Your task to perform on an android device: Go to ESPN.com Image 0: 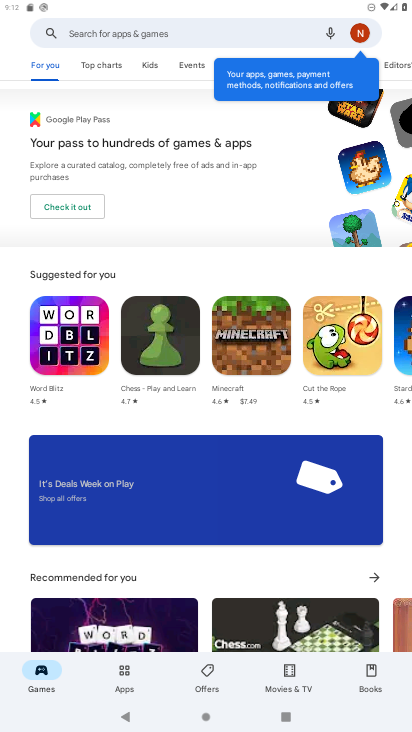
Step 0: press home button
Your task to perform on an android device: Go to ESPN.com Image 1: 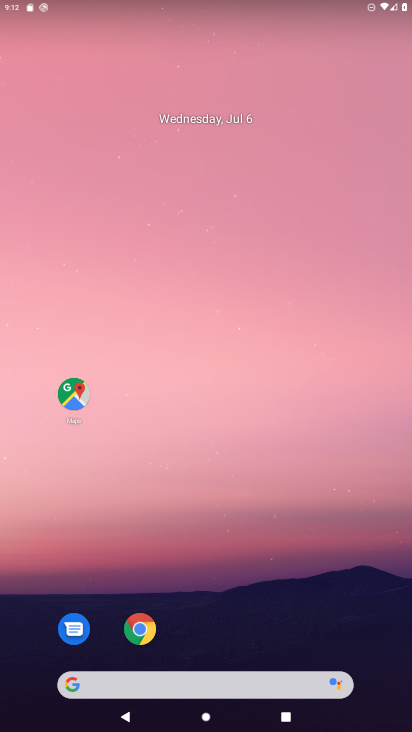
Step 1: drag from (236, 710) to (209, 7)
Your task to perform on an android device: Go to ESPN.com Image 2: 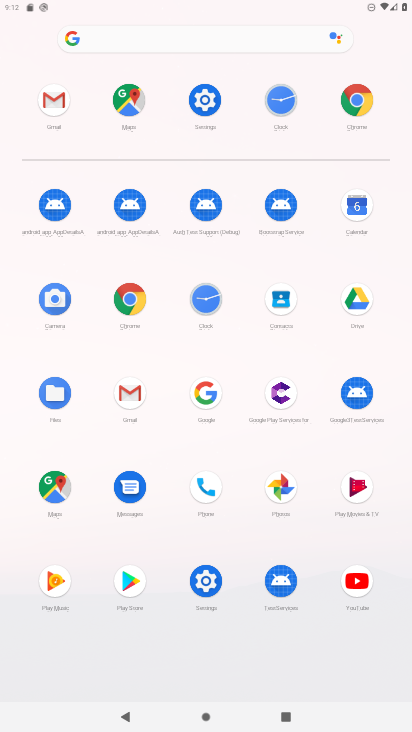
Step 2: click (136, 302)
Your task to perform on an android device: Go to ESPN.com Image 3: 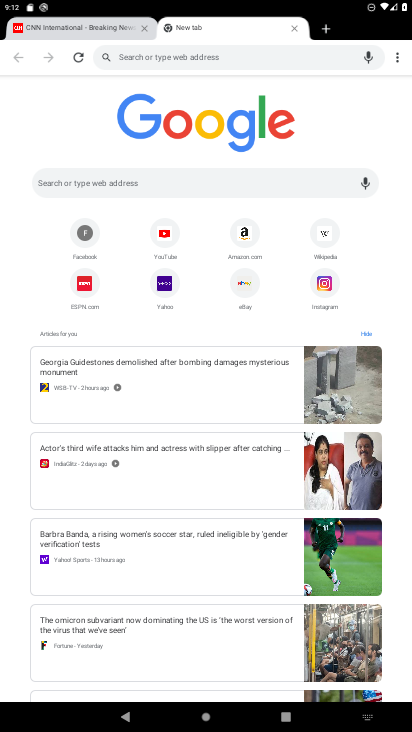
Step 3: click (94, 285)
Your task to perform on an android device: Go to ESPN.com Image 4: 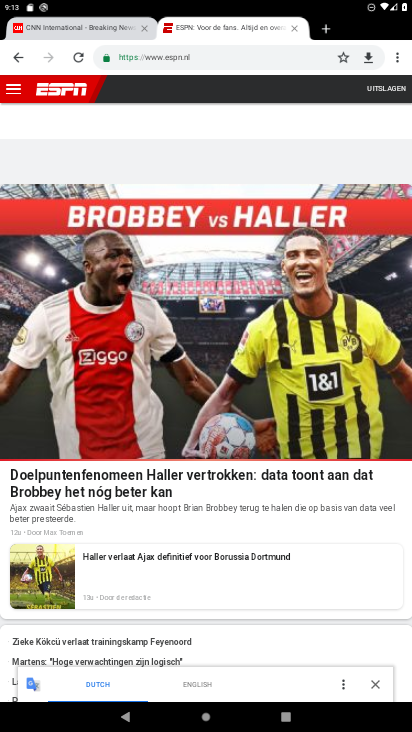
Step 4: task complete